Your task to perform on an android device: Open the map Image 0: 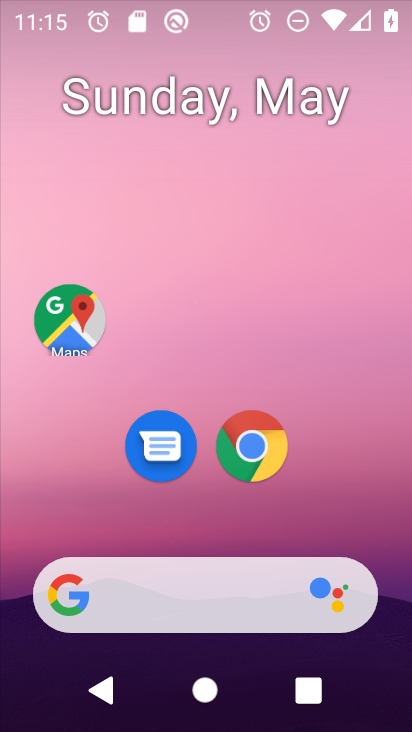
Step 0: press home button
Your task to perform on an android device: Open the map Image 1: 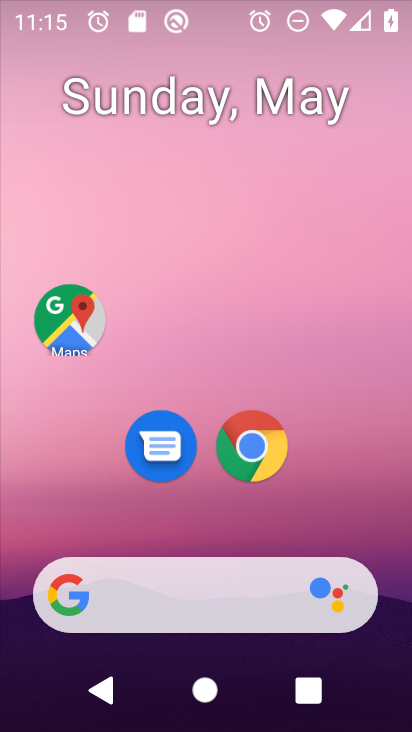
Step 1: click (346, 59)
Your task to perform on an android device: Open the map Image 2: 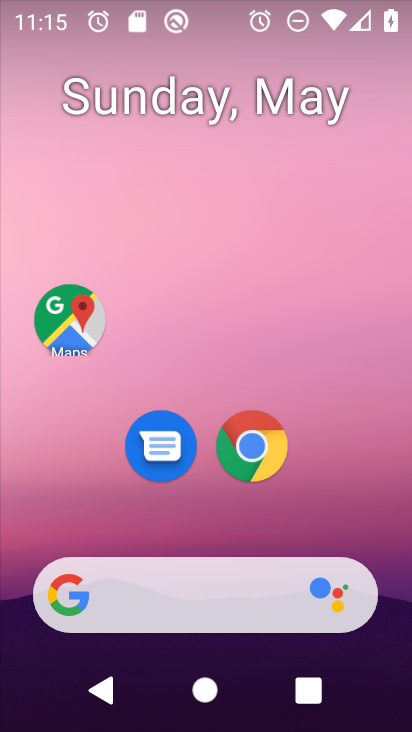
Step 2: drag from (381, 641) to (317, 40)
Your task to perform on an android device: Open the map Image 3: 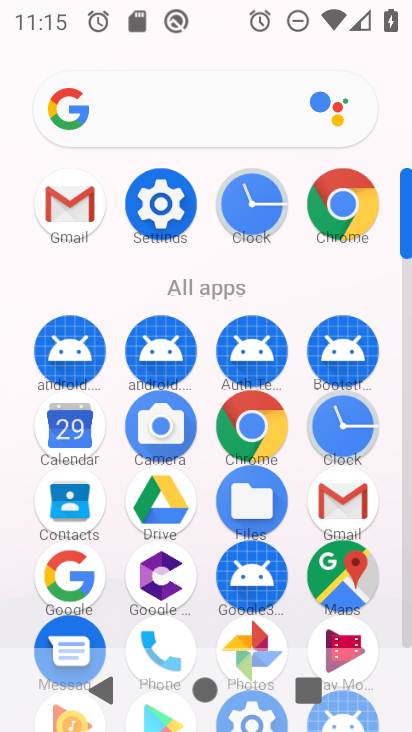
Step 3: drag from (6, 639) to (13, 202)
Your task to perform on an android device: Open the map Image 4: 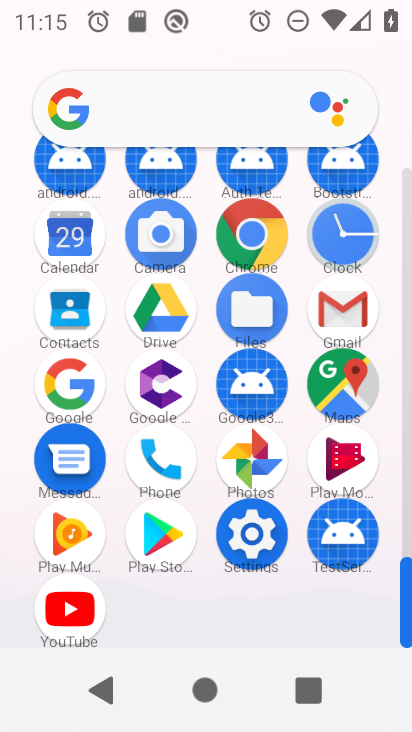
Step 4: click (336, 388)
Your task to perform on an android device: Open the map Image 5: 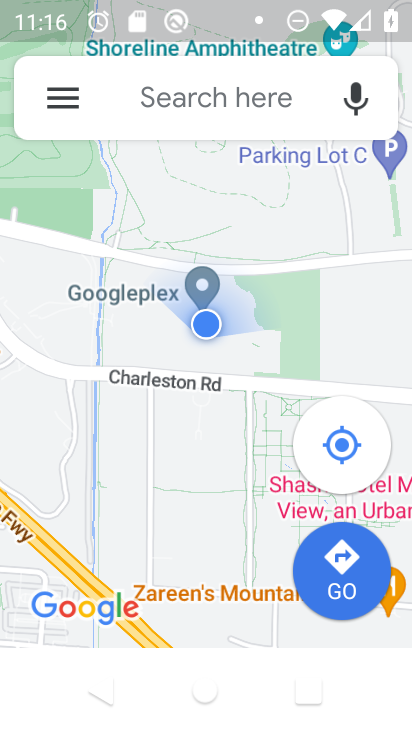
Step 5: task complete